Your task to perform on an android device: choose inbox layout in the gmail app Image 0: 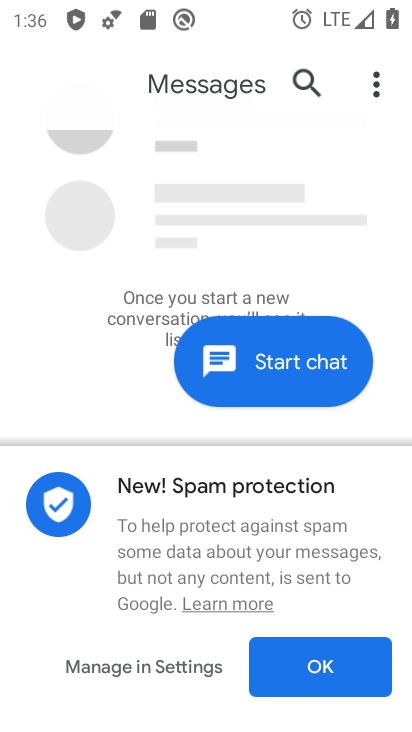
Step 0: press home button
Your task to perform on an android device: choose inbox layout in the gmail app Image 1: 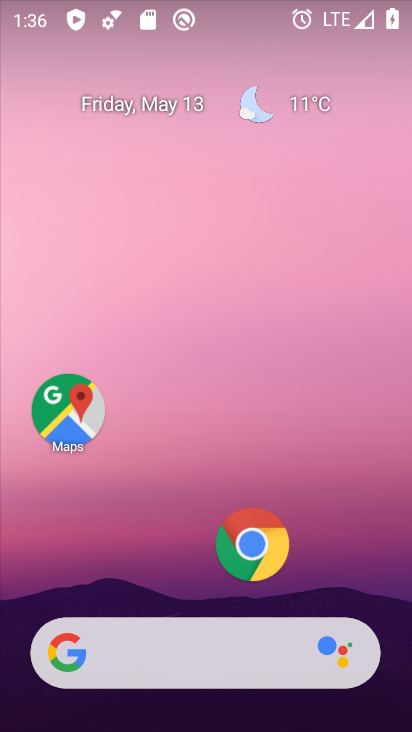
Step 1: drag from (162, 365) to (215, 24)
Your task to perform on an android device: choose inbox layout in the gmail app Image 2: 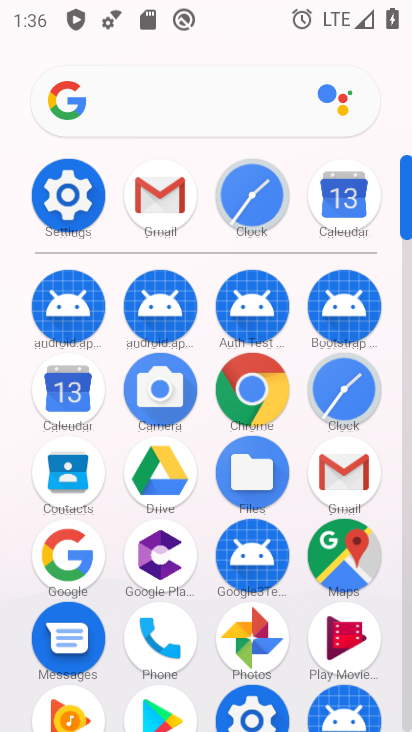
Step 2: click (355, 475)
Your task to perform on an android device: choose inbox layout in the gmail app Image 3: 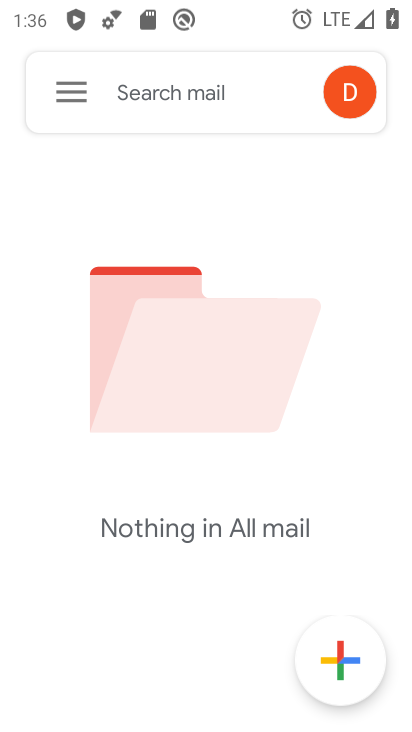
Step 3: click (68, 91)
Your task to perform on an android device: choose inbox layout in the gmail app Image 4: 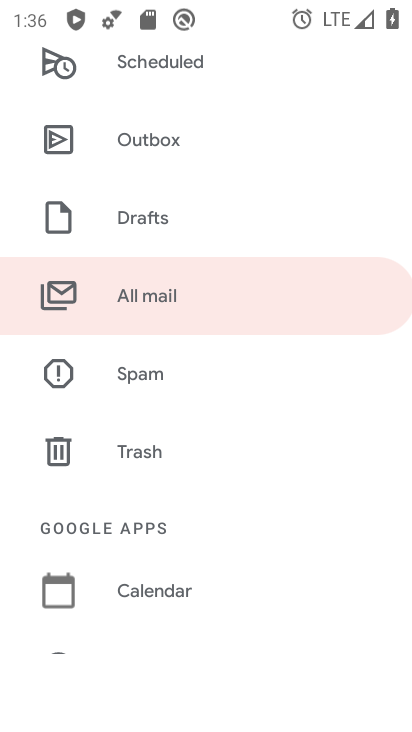
Step 4: drag from (269, 538) to (300, 254)
Your task to perform on an android device: choose inbox layout in the gmail app Image 5: 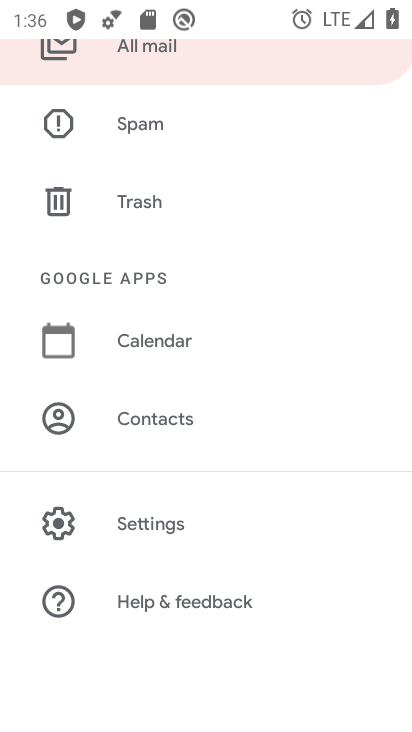
Step 5: click (166, 525)
Your task to perform on an android device: choose inbox layout in the gmail app Image 6: 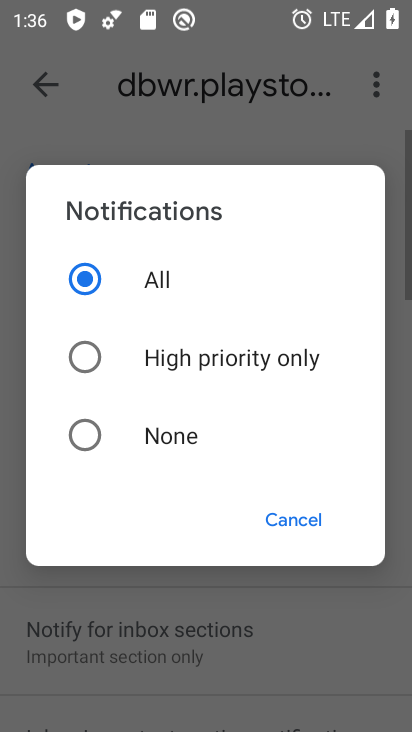
Step 6: click (142, 523)
Your task to perform on an android device: choose inbox layout in the gmail app Image 7: 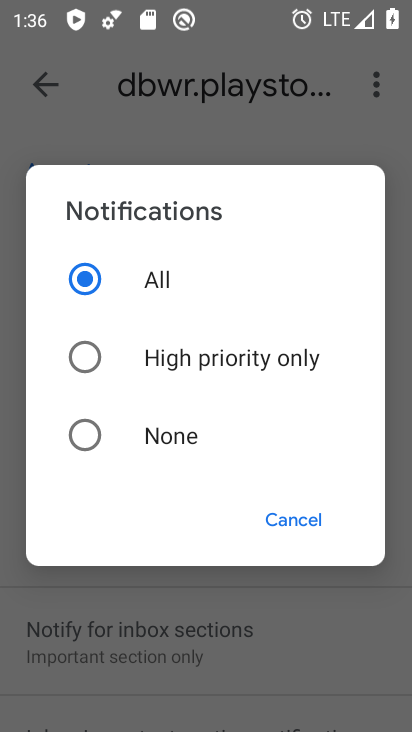
Step 7: click (268, 503)
Your task to perform on an android device: choose inbox layout in the gmail app Image 8: 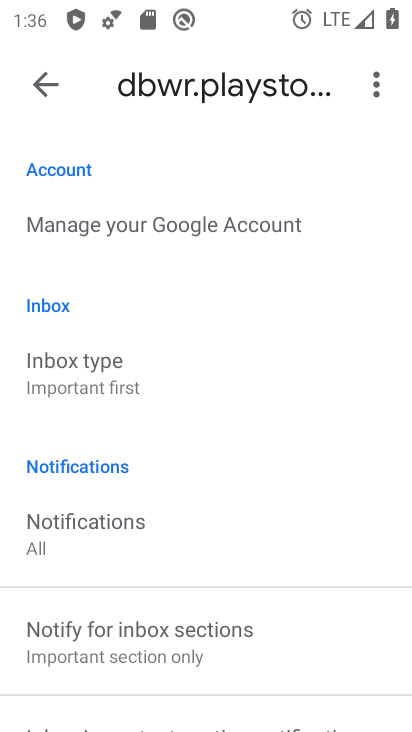
Step 8: drag from (143, 208) to (88, 571)
Your task to perform on an android device: choose inbox layout in the gmail app Image 9: 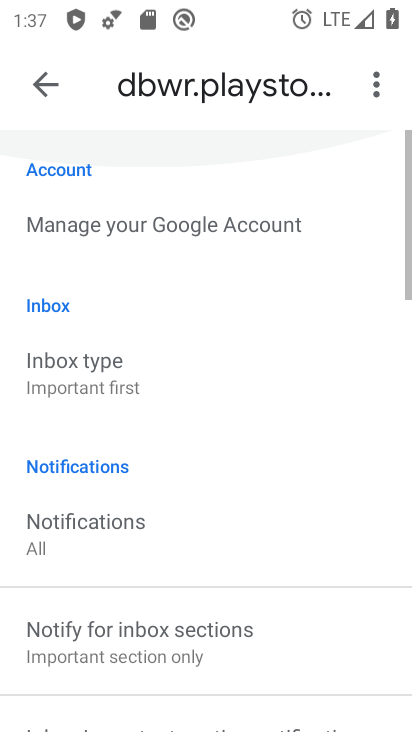
Step 9: drag from (92, 591) to (135, 676)
Your task to perform on an android device: choose inbox layout in the gmail app Image 10: 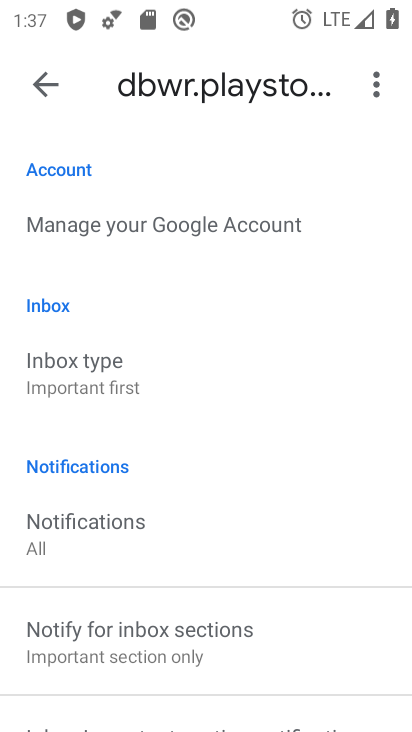
Step 10: click (100, 377)
Your task to perform on an android device: choose inbox layout in the gmail app Image 11: 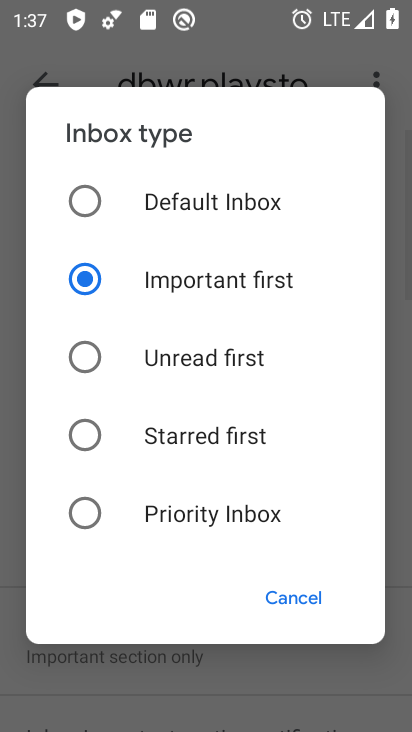
Step 11: click (162, 197)
Your task to perform on an android device: choose inbox layout in the gmail app Image 12: 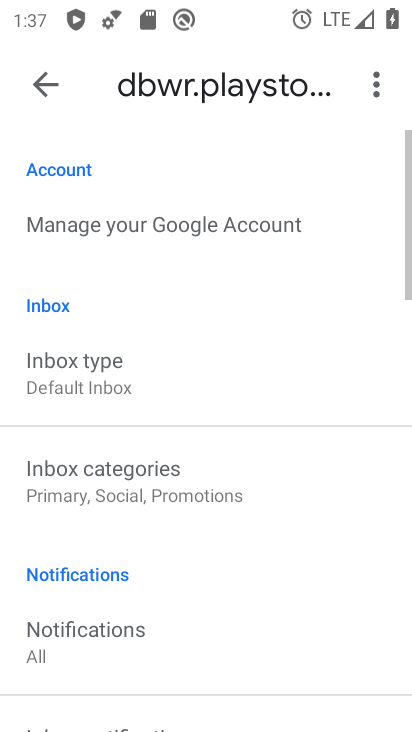
Step 12: task complete